Your task to perform on an android device: turn on sleep mode Image 0: 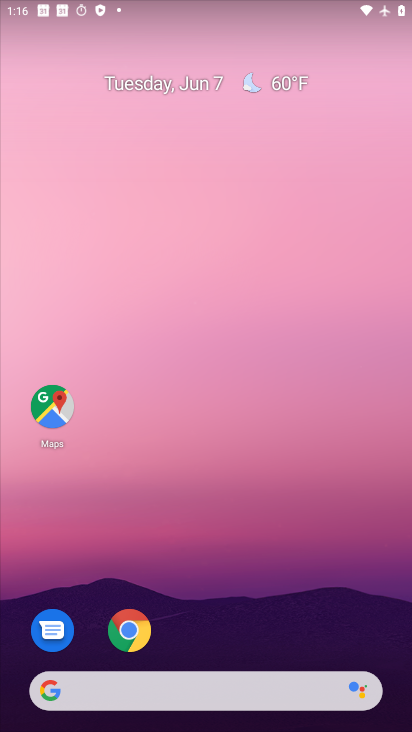
Step 0: drag from (365, 621) to (240, 168)
Your task to perform on an android device: turn on sleep mode Image 1: 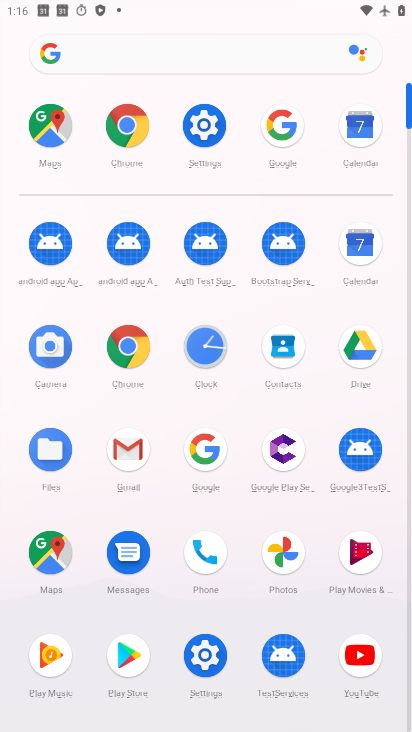
Step 1: click (195, 665)
Your task to perform on an android device: turn on sleep mode Image 2: 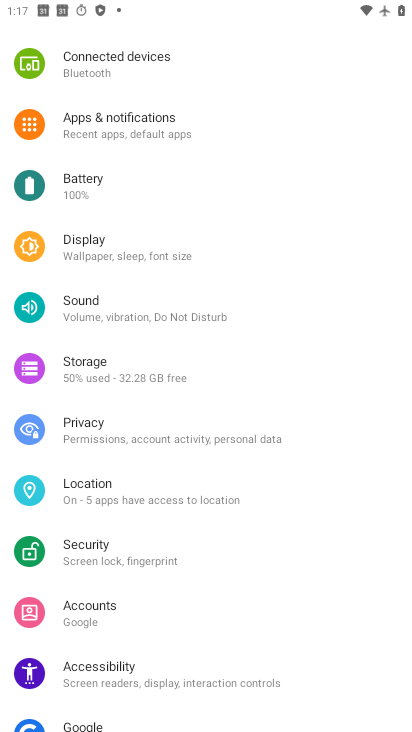
Step 2: task complete